Your task to perform on an android device: move a message to another label in the gmail app Image 0: 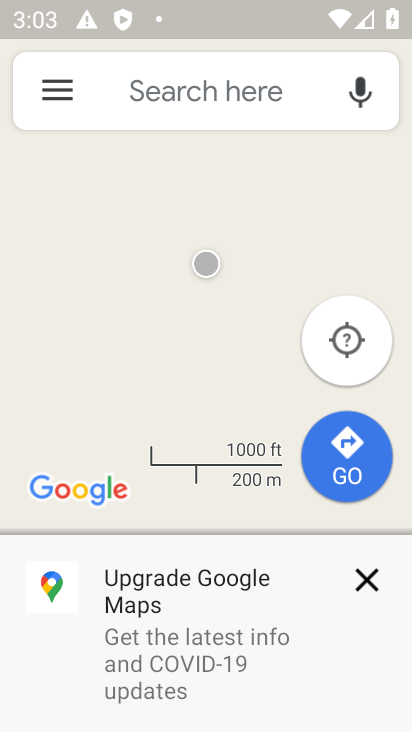
Step 0: press back button
Your task to perform on an android device: move a message to another label in the gmail app Image 1: 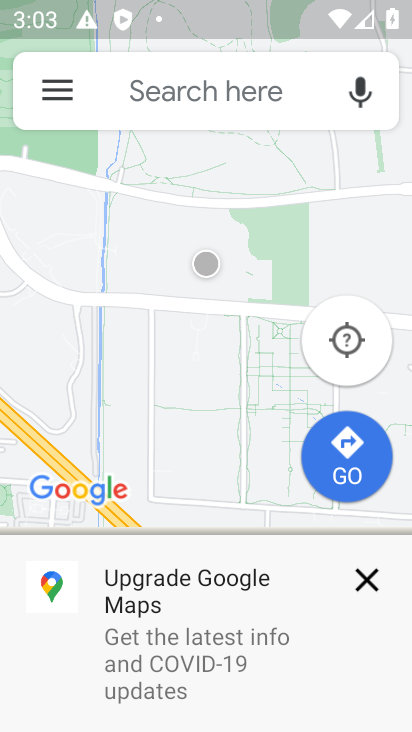
Step 1: press home button
Your task to perform on an android device: move a message to another label in the gmail app Image 2: 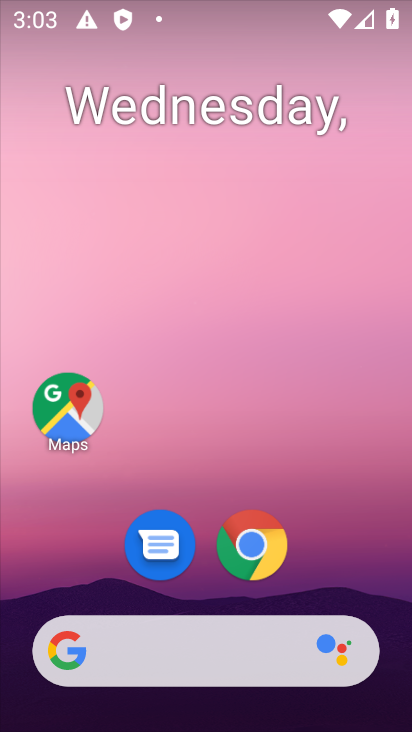
Step 2: drag from (210, 646) to (180, 326)
Your task to perform on an android device: move a message to another label in the gmail app Image 3: 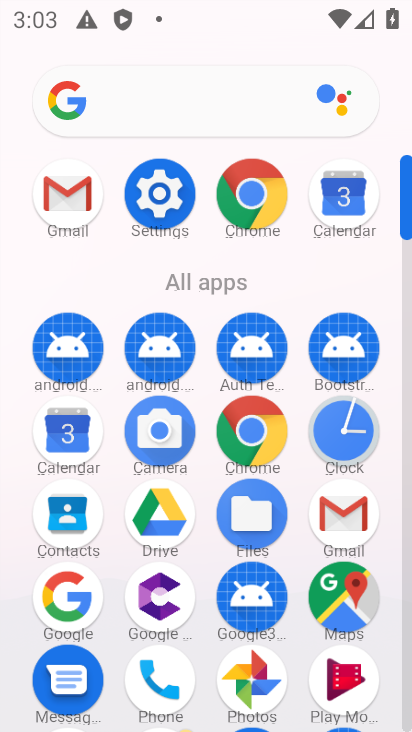
Step 3: click (350, 516)
Your task to perform on an android device: move a message to another label in the gmail app Image 4: 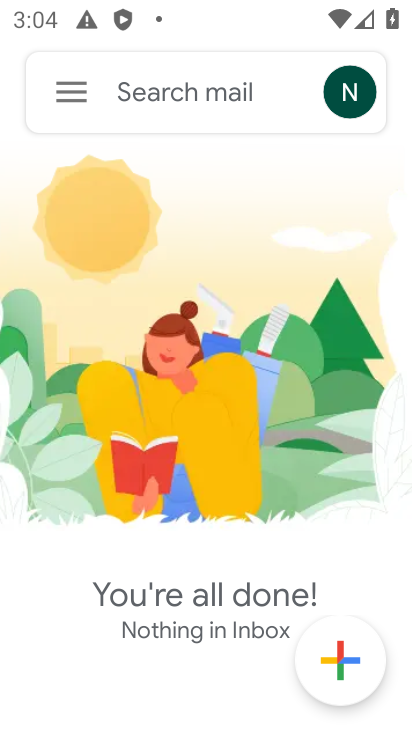
Step 4: task complete